Your task to perform on an android device: Open Yahoo.com Image 0: 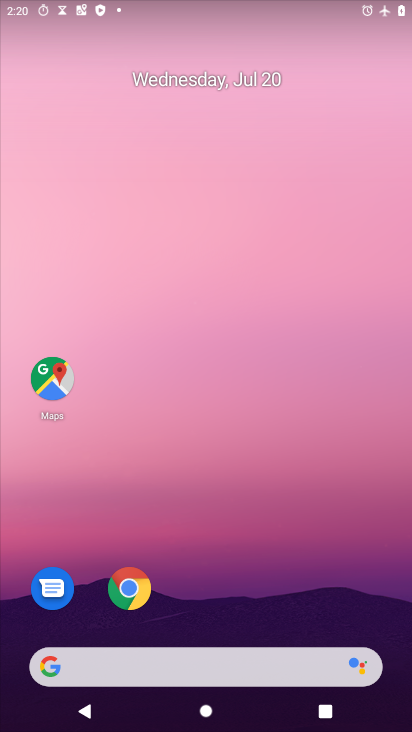
Step 0: drag from (351, 623) to (310, 5)
Your task to perform on an android device: Open Yahoo.com Image 1: 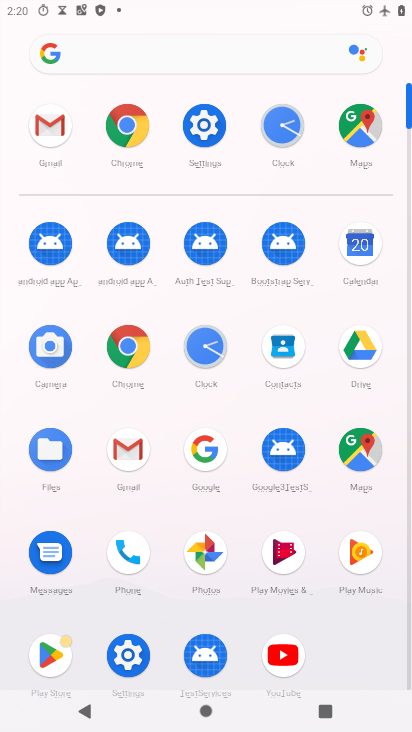
Step 1: click (137, 343)
Your task to perform on an android device: Open Yahoo.com Image 2: 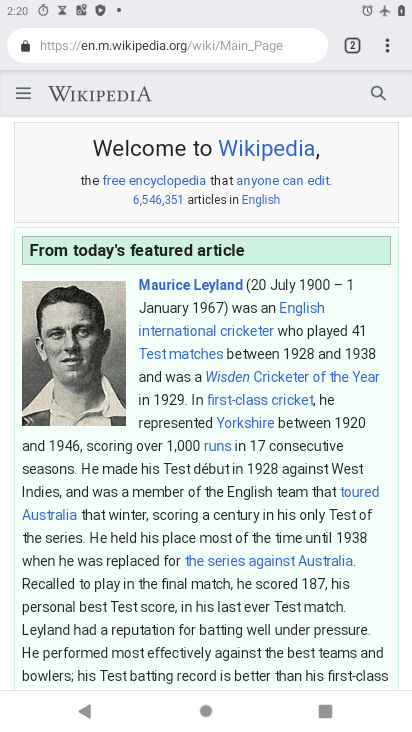
Step 2: click (223, 45)
Your task to perform on an android device: Open Yahoo.com Image 3: 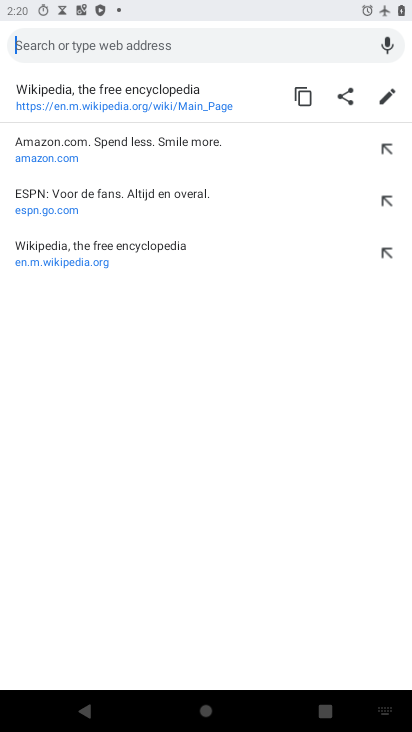
Step 3: type "yahoo.com"
Your task to perform on an android device: Open Yahoo.com Image 4: 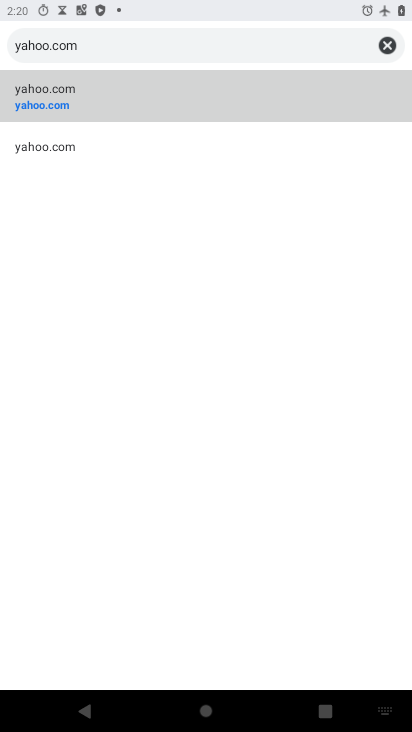
Step 4: click (93, 103)
Your task to perform on an android device: Open Yahoo.com Image 5: 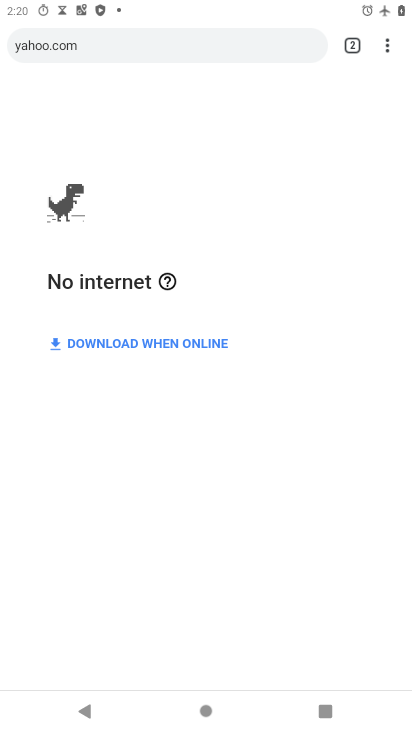
Step 5: task complete